Your task to perform on an android device: Search for Mexican restaurants on Maps Image 0: 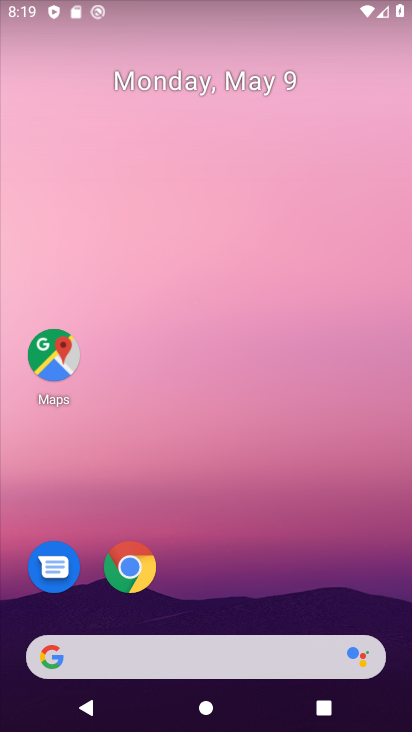
Step 0: drag from (368, 598) to (302, 187)
Your task to perform on an android device: Search for Mexican restaurants on Maps Image 1: 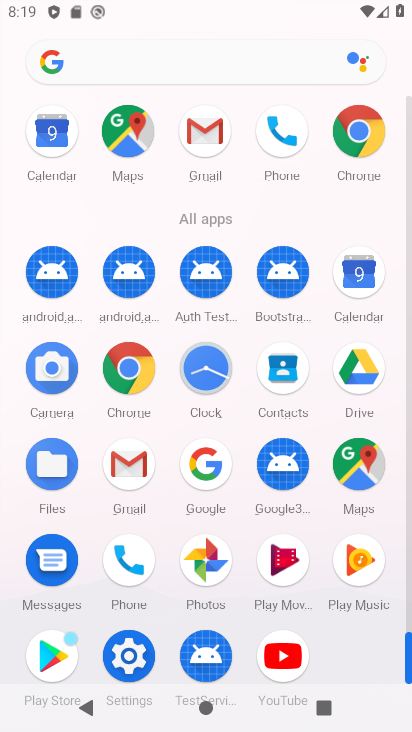
Step 1: click (350, 466)
Your task to perform on an android device: Search for Mexican restaurants on Maps Image 2: 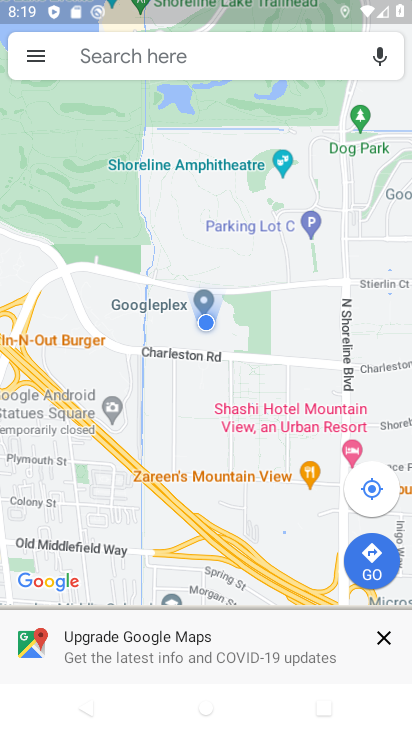
Step 2: click (193, 52)
Your task to perform on an android device: Search for Mexican restaurants on Maps Image 3: 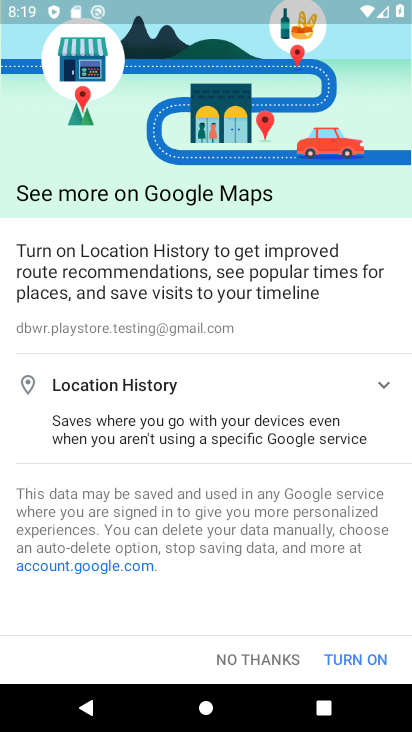
Step 3: click (270, 658)
Your task to perform on an android device: Search for Mexican restaurants on Maps Image 4: 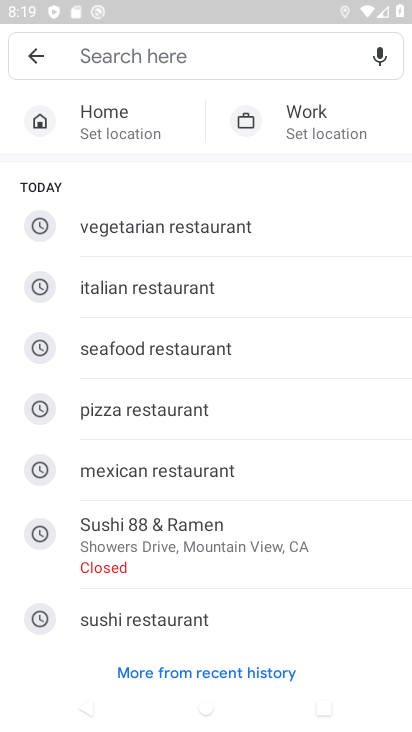
Step 4: click (170, 488)
Your task to perform on an android device: Search for Mexican restaurants on Maps Image 5: 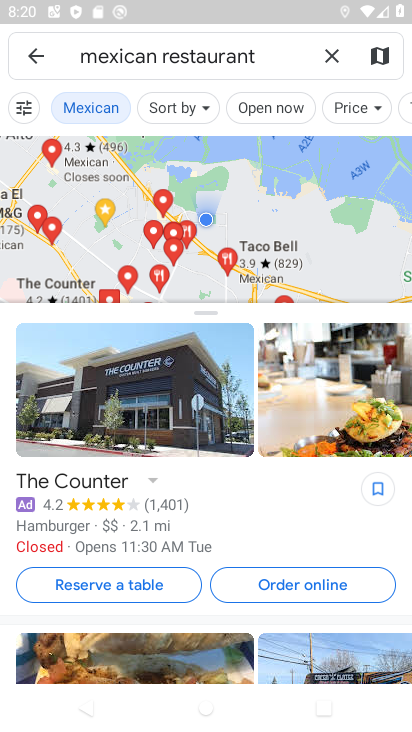
Step 5: task complete